Your task to perform on an android device: Open Maps and search for coffee Image 0: 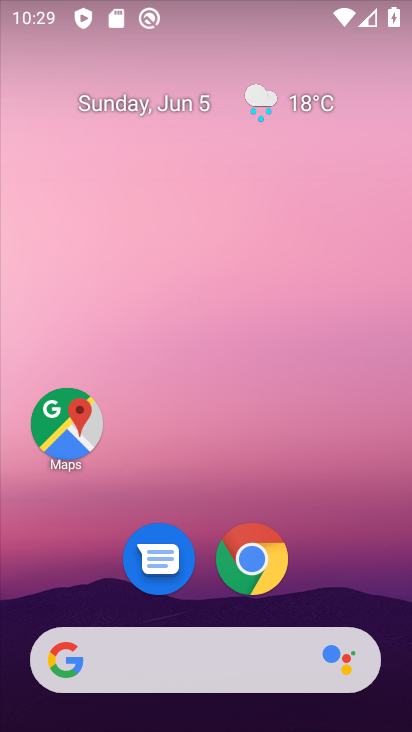
Step 0: click (88, 413)
Your task to perform on an android device: Open Maps and search for coffee Image 1: 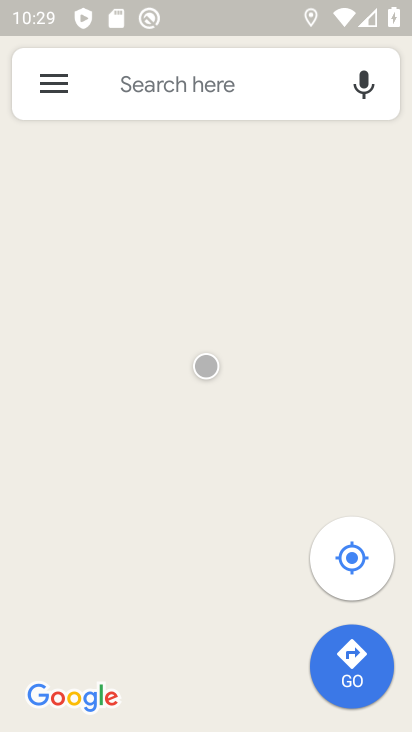
Step 1: click (110, 98)
Your task to perform on an android device: Open Maps and search for coffee Image 2: 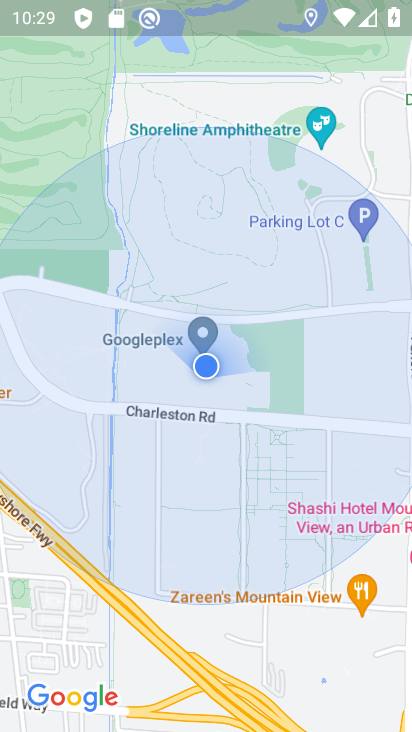
Step 2: drag from (291, 168) to (249, 322)
Your task to perform on an android device: Open Maps and search for coffee Image 3: 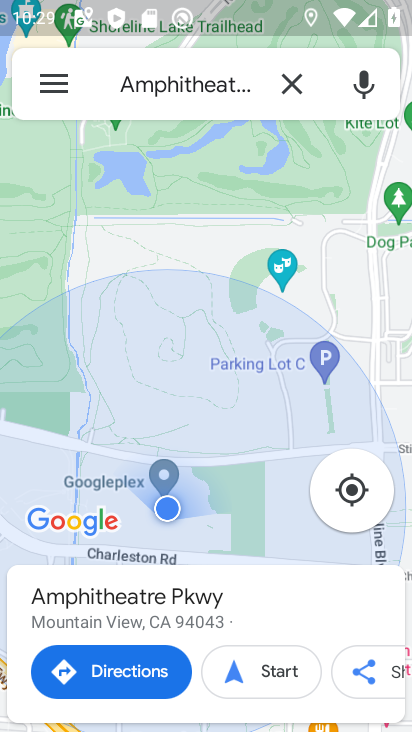
Step 3: click (217, 80)
Your task to perform on an android device: Open Maps and search for coffee Image 4: 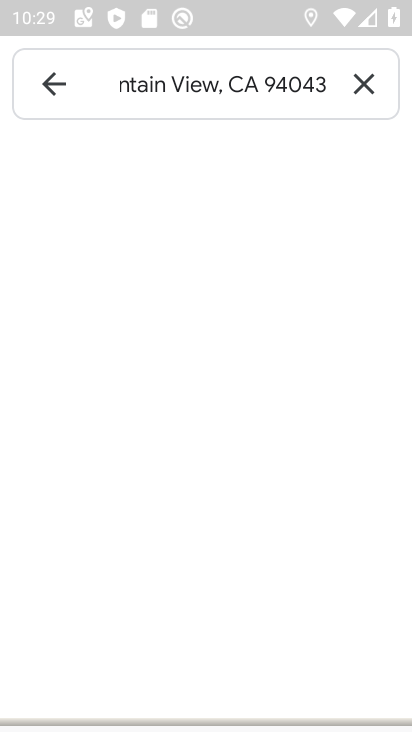
Step 4: click (363, 74)
Your task to perform on an android device: Open Maps and search for coffee Image 5: 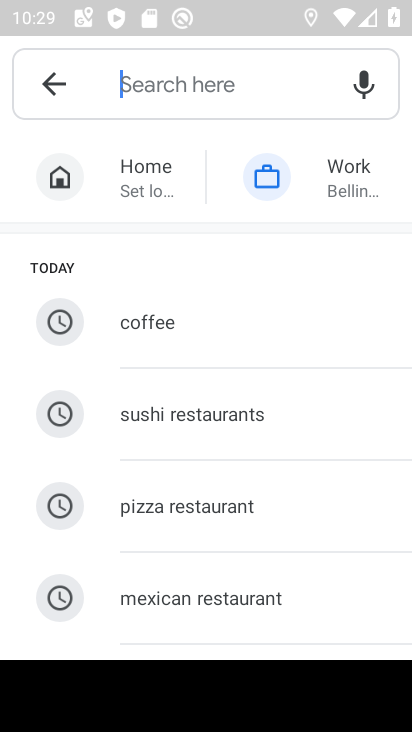
Step 5: click (216, 330)
Your task to perform on an android device: Open Maps and search for coffee Image 6: 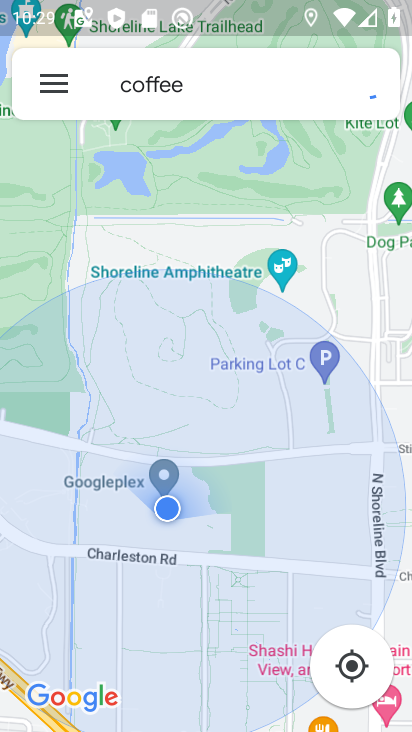
Step 6: task complete